Your task to perform on an android device: Search for the best rated headphones on amazon.com Image 0: 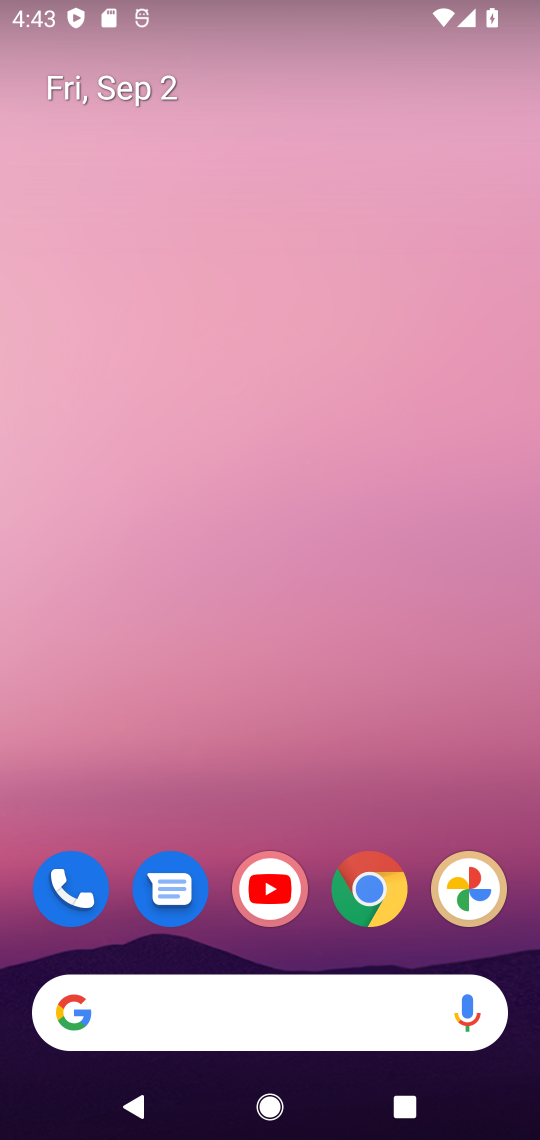
Step 0: click (344, 911)
Your task to perform on an android device: Search for the best rated headphones on amazon.com Image 1: 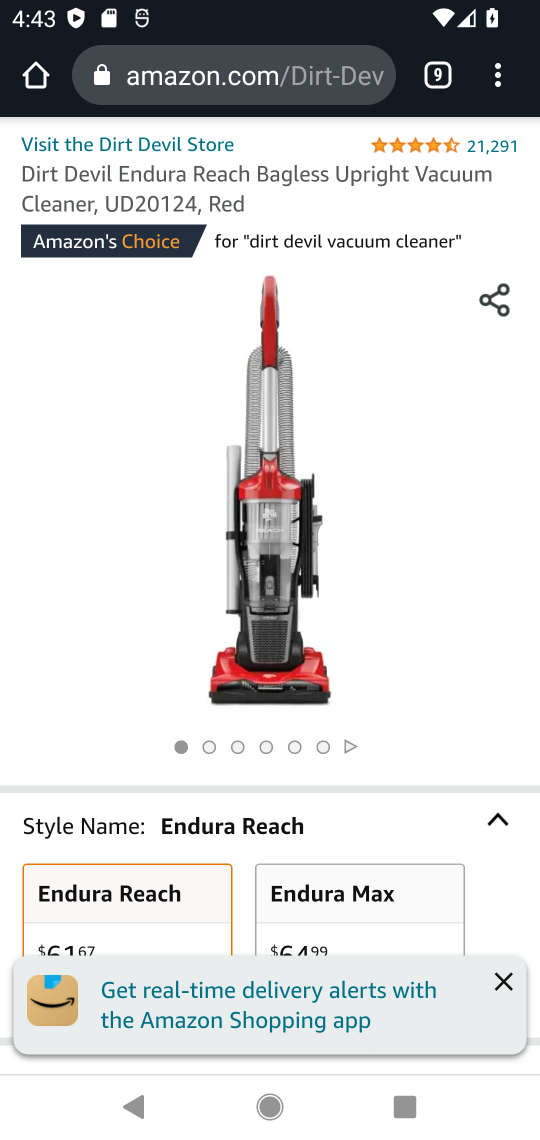
Step 1: click (217, 88)
Your task to perform on an android device: Search for the best rated headphones on amazon.com Image 2: 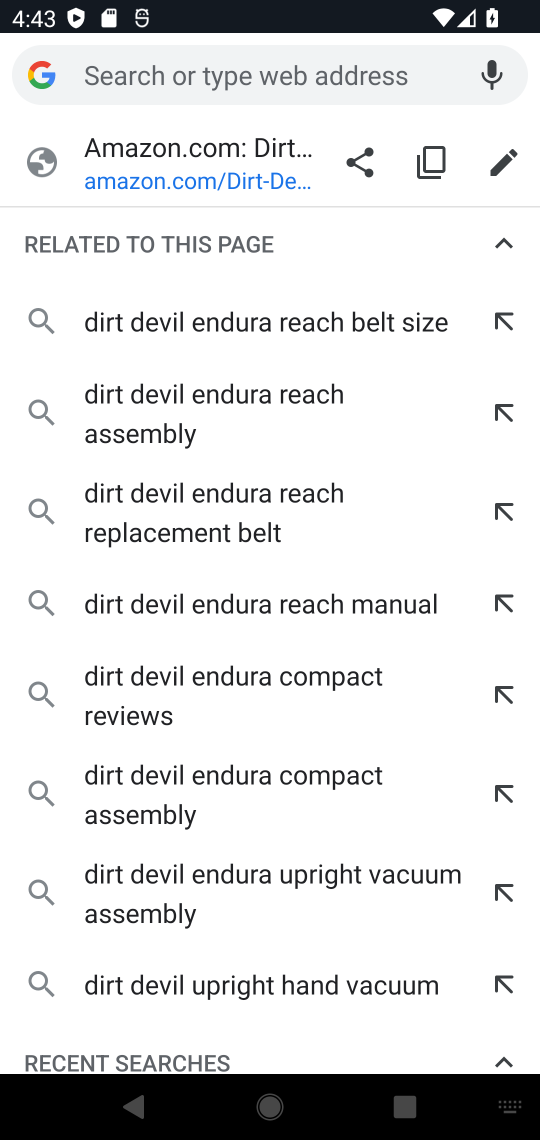
Step 2: type ""
Your task to perform on an android device: Search for the best rated headphones on amazon.com Image 3: 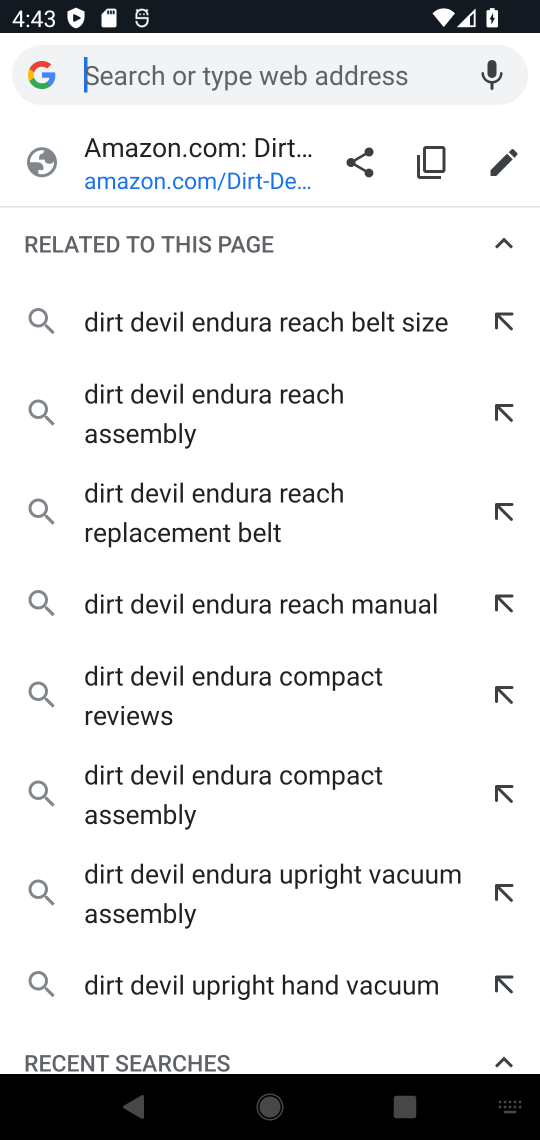
Step 3: type "amazon.com"
Your task to perform on an android device: Search for the best rated headphones on amazon.com Image 4: 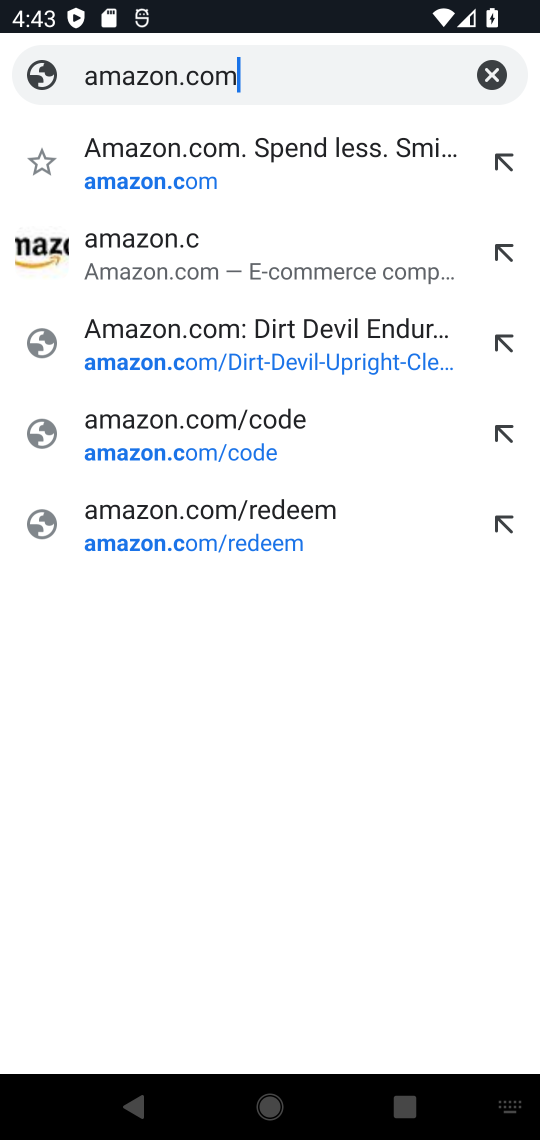
Step 4: type ""
Your task to perform on an android device: Search for the best rated headphones on amazon.com Image 5: 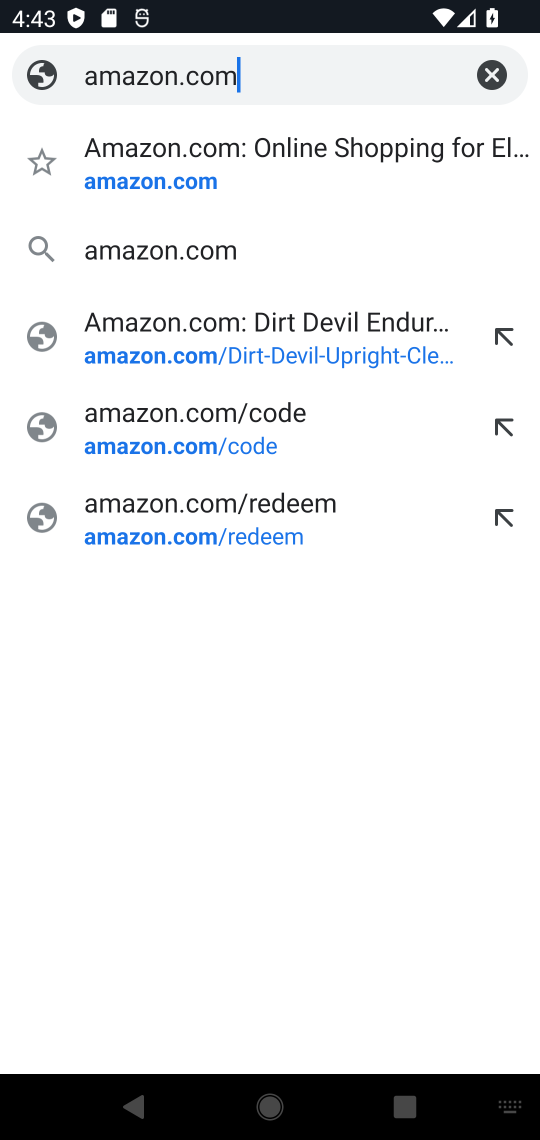
Step 5: click (228, 159)
Your task to perform on an android device: Search for the best rated headphones on amazon.com Image 6: 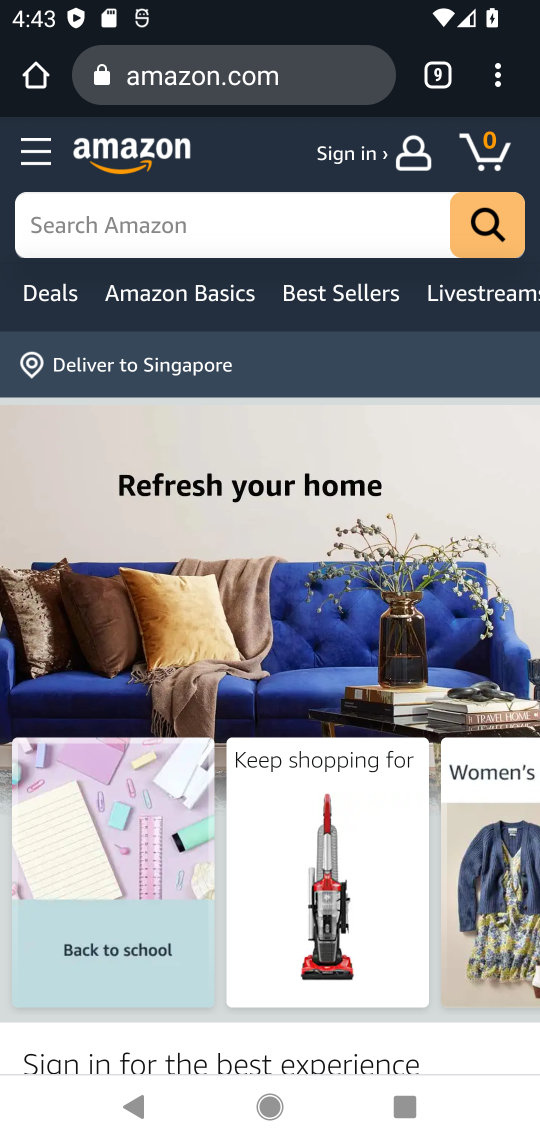
Step 6: click (231, 239)
Your task to perform on an android device: Search for the best rated headphones on amazon.com Image 7: 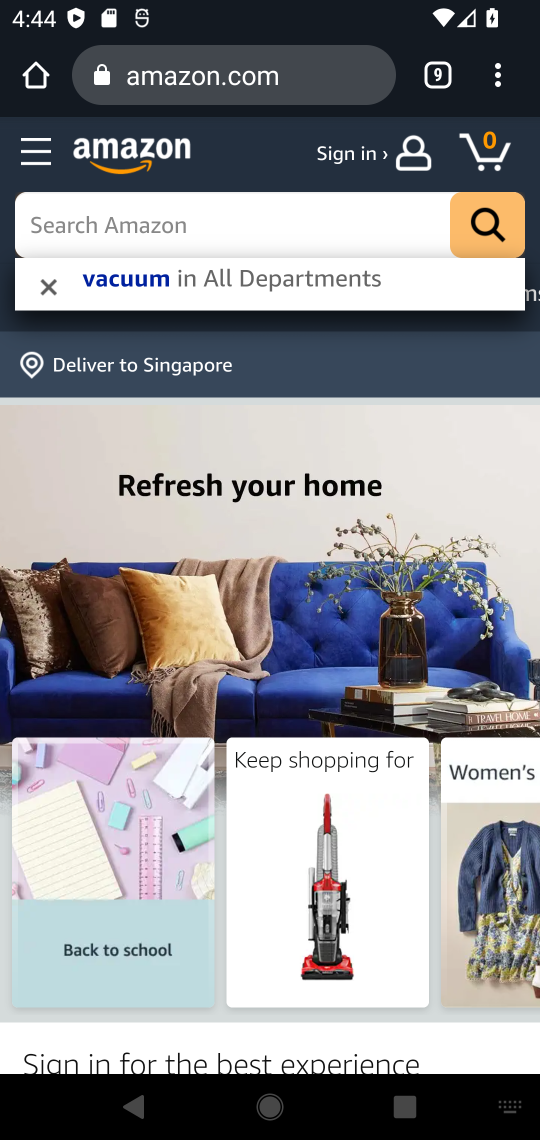
Step 7: type "headphones"
Your task to perform on an android device: Search for the best rated headphones on amazon.com Image 8: 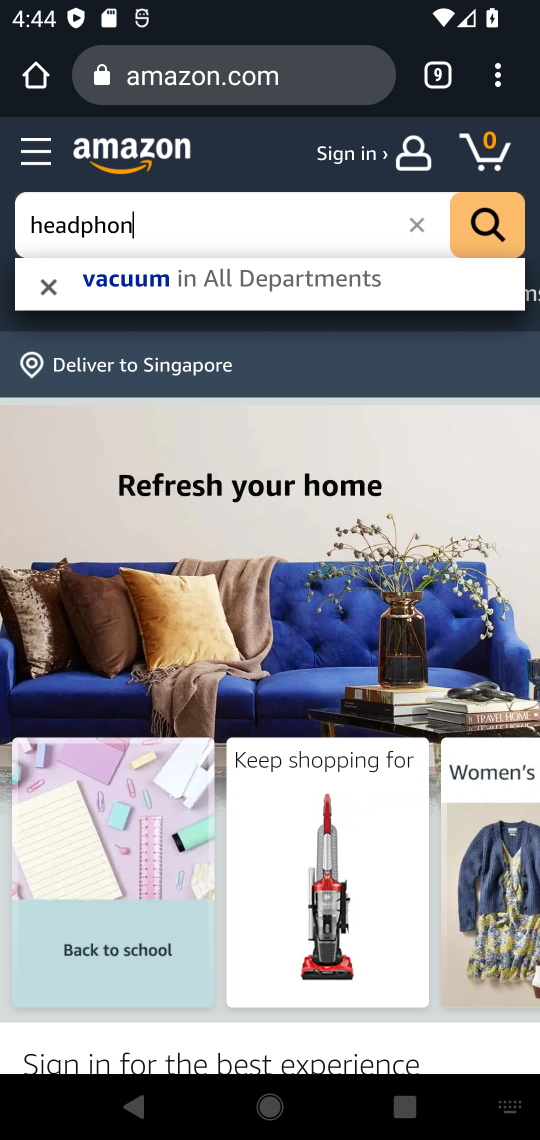
Step 8: type ""
Your task to perform on an android device: Search for the best rated headphones on amazon.com Image 9: 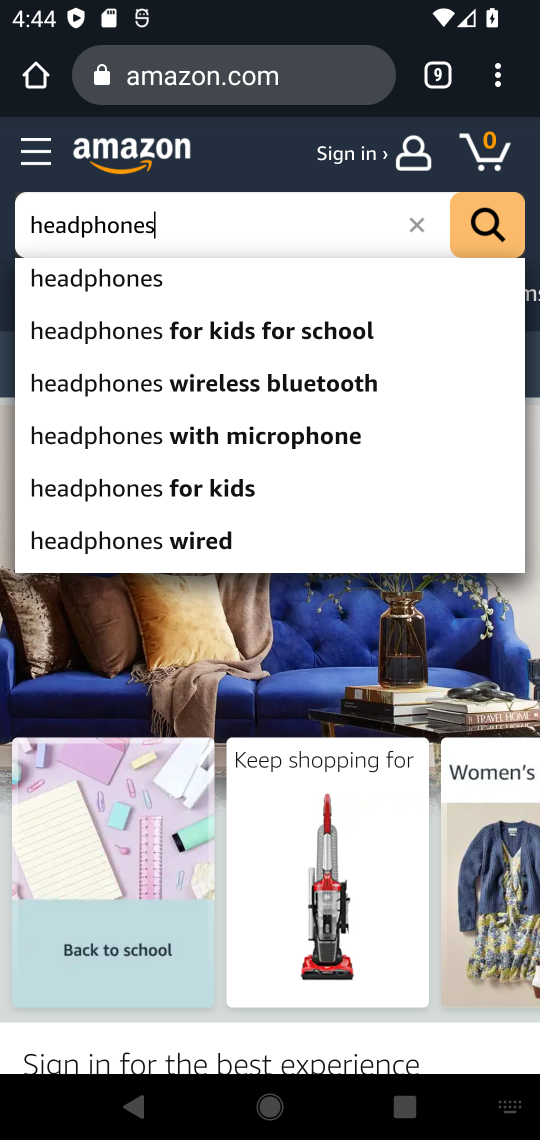
Step 9: click (148, 263)
Your task to perform on an android device: Search for the best rated headphones on amazon.com Image 10: 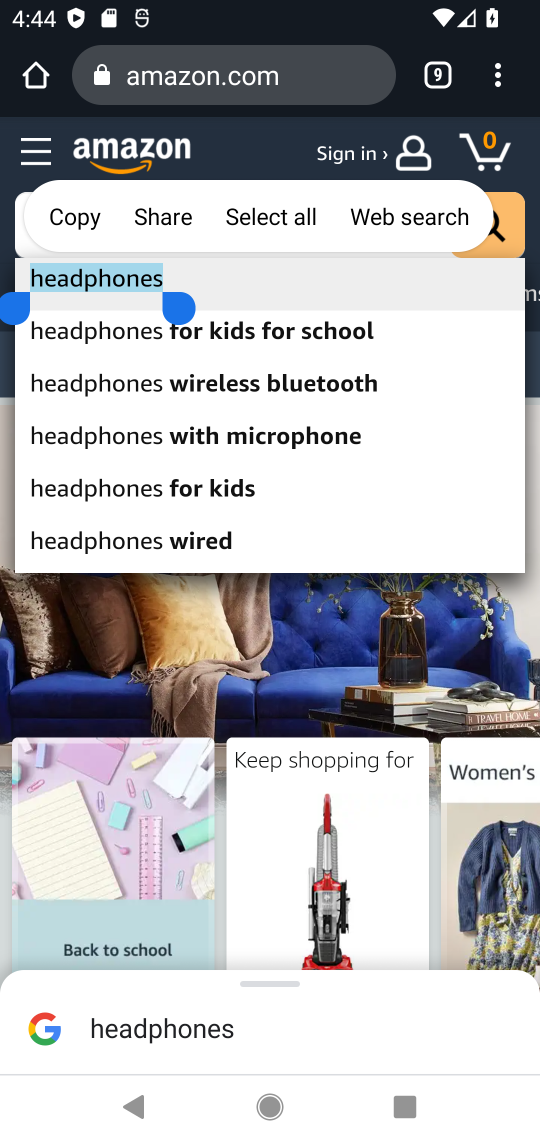
Step 10: click (90, 270)
Your task to perform on an android device: Search for the best rated headphones on amazon.com Image 11: 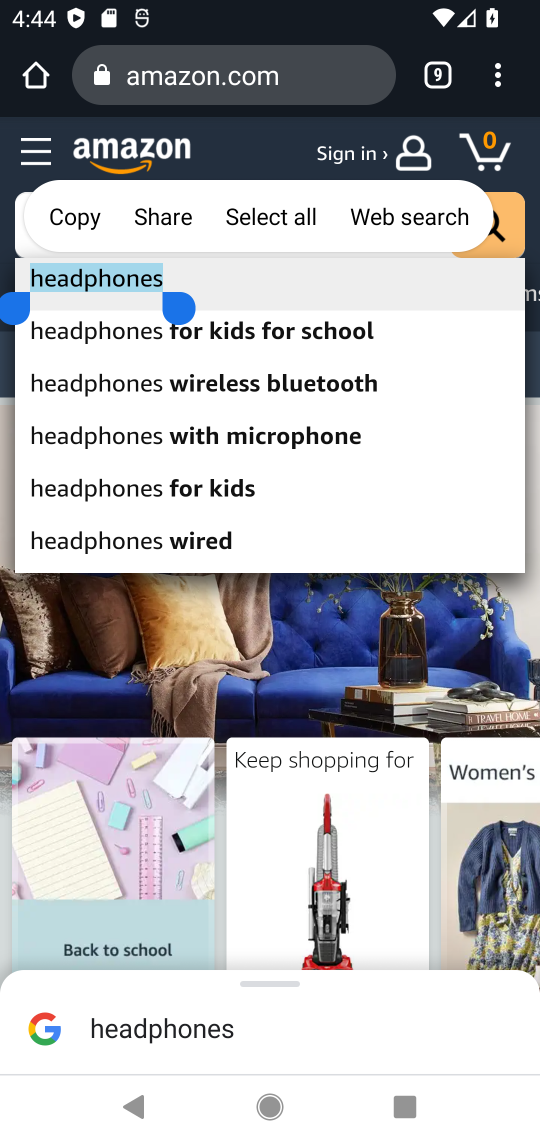
Step 11: click (255, 270)
Your task to perform on an android device: Search for the best rated headphones on amazon.com Image 12: 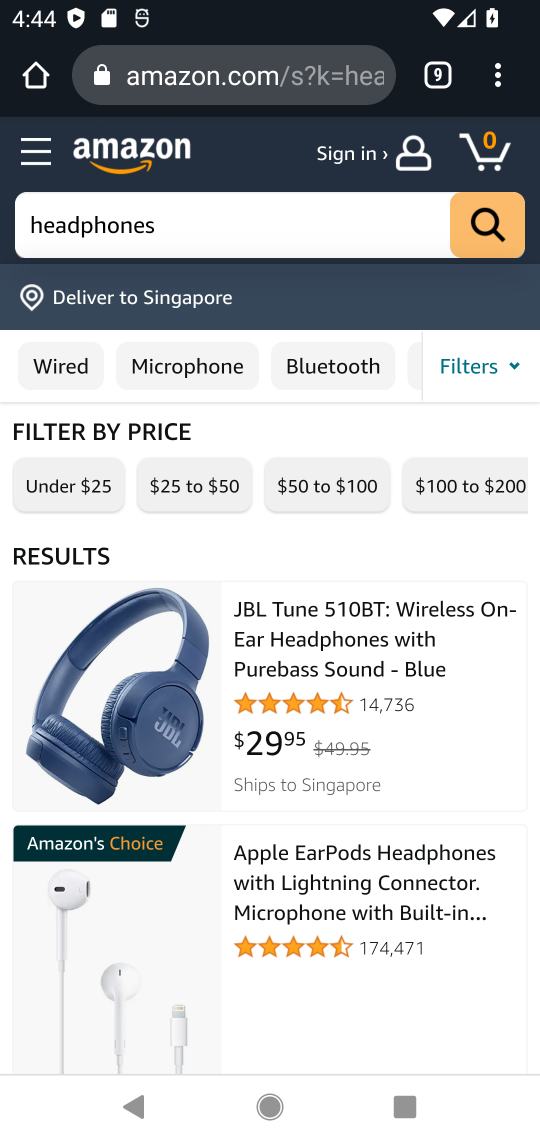
Step 12: task complete